Your task to perform on an android device: Open my contact list Image 0: 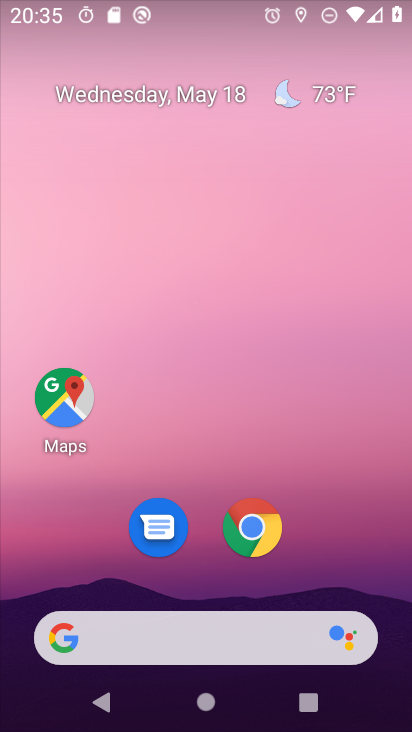
Step 0: press home button
Your task to perform on an android device: Open my contact list Image 1: 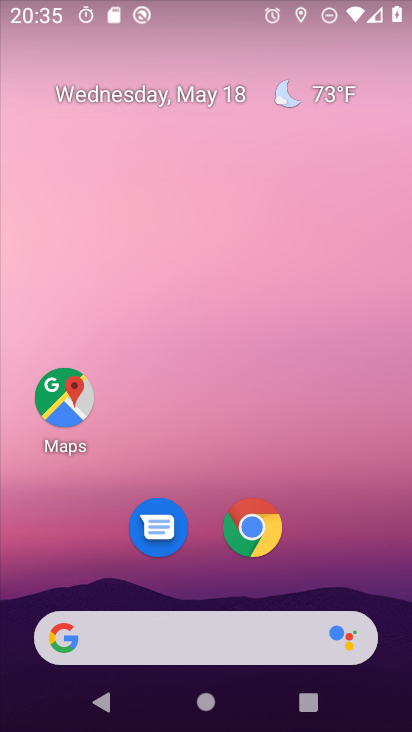
Step 1: drag from (394, 672) to (404, 224)
Your task to perform on an android device: Open my contact list Image 2: 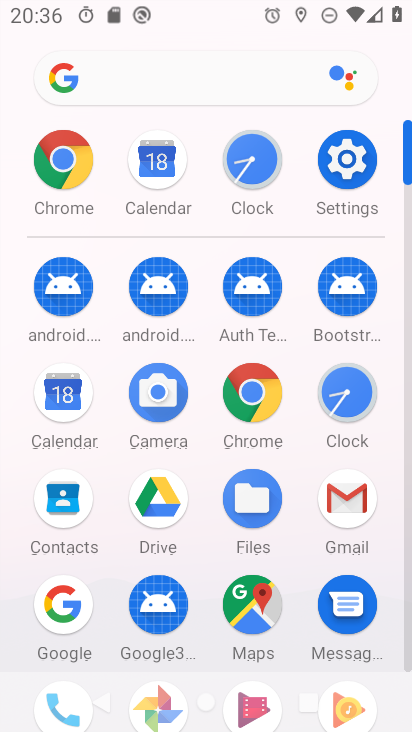
Step 2: click (282, 270)
Your task to perform on an android device: Open my contact list Image 3: 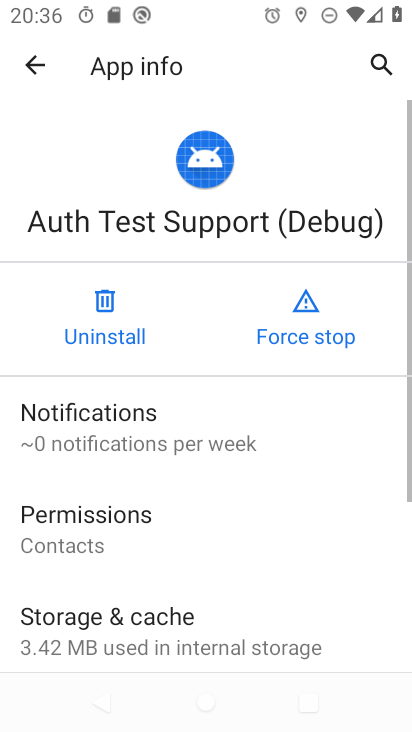
Step 3: drag from (292, 609) to (294, 259)
Your task to perform on an android device: Open my contact list Image 4: 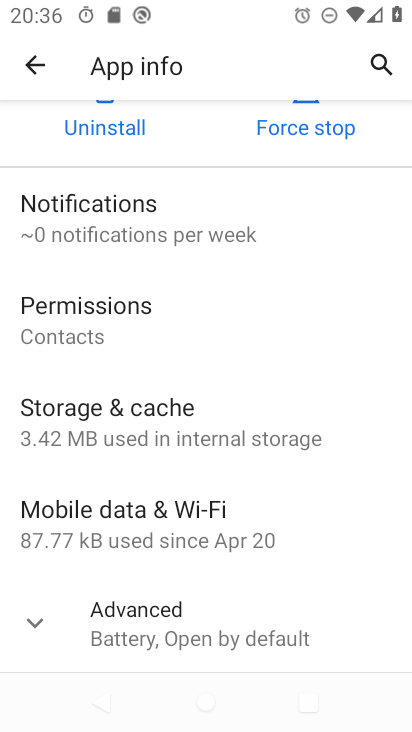
Step 4: click (39, 63)
Your task to perform on an android device: Open my contact list Image 5: 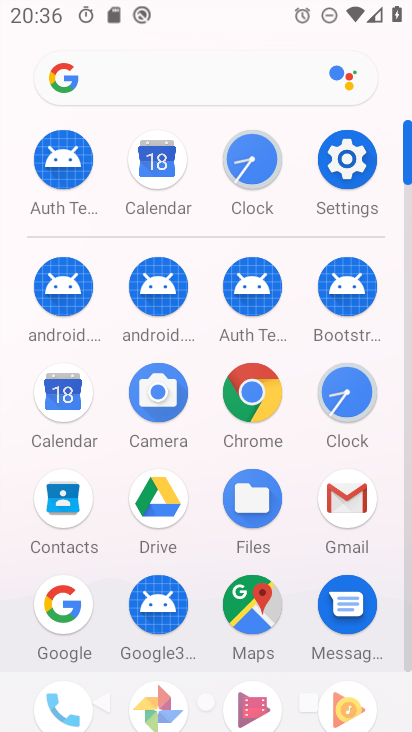
Step 5: click (39, 66)
Your task to perform on an android device: Open my contact list Image 6: 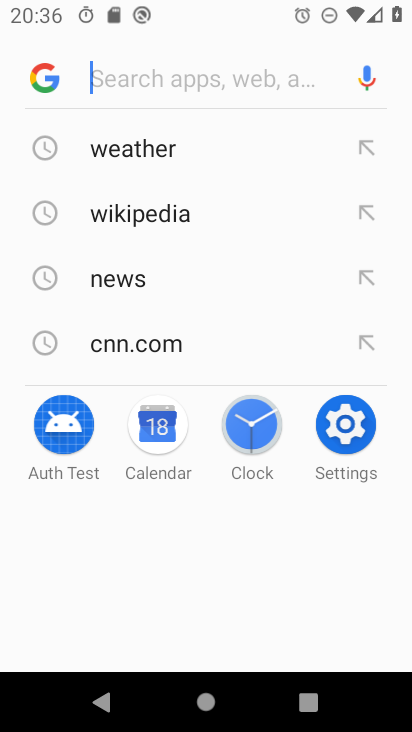
Step 6: press back button
Your task to perform on an android device: Open my contact list Image 7: 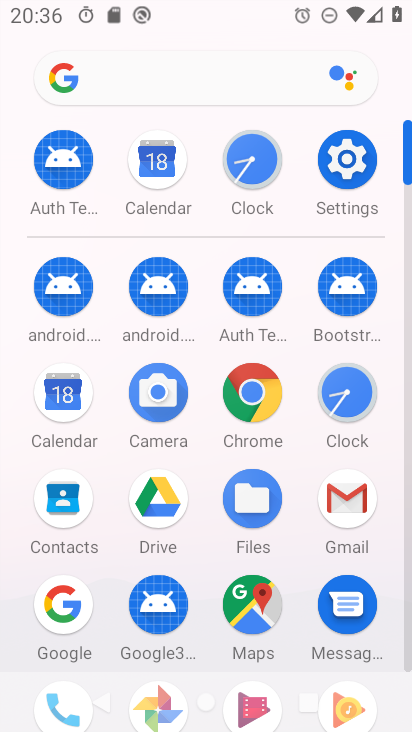
Step 7: click (70, 513)
Your task to perform on an android device: Open my contact list Image 8: 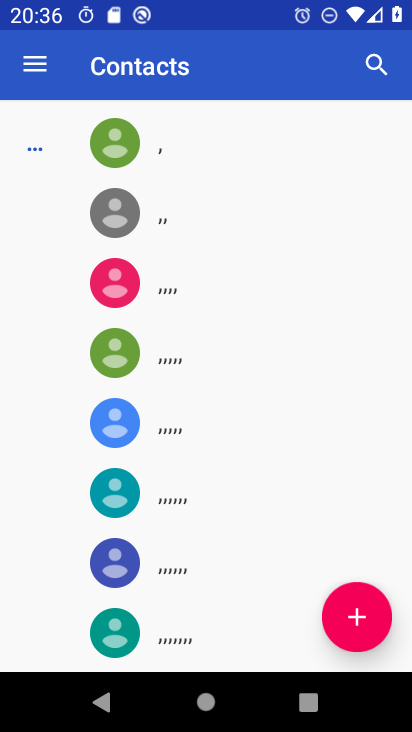
Step 8: task complete